Your task to perform on an android device: Show me popular games on the Play Store Image 0: 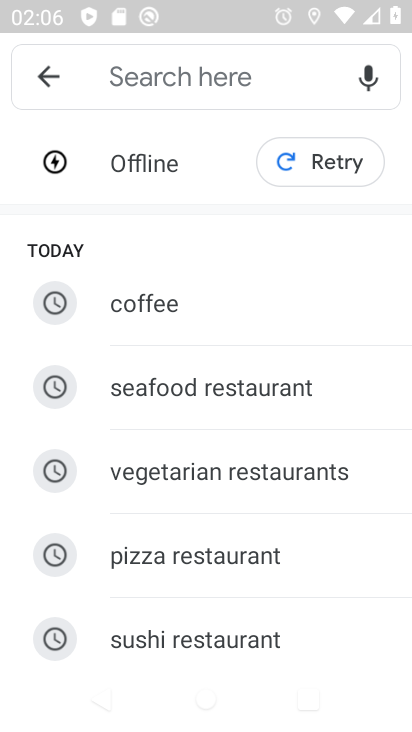
Step 0: press home button
Your task to perform on an android device: Show me popular games on the Play Store Image 1: 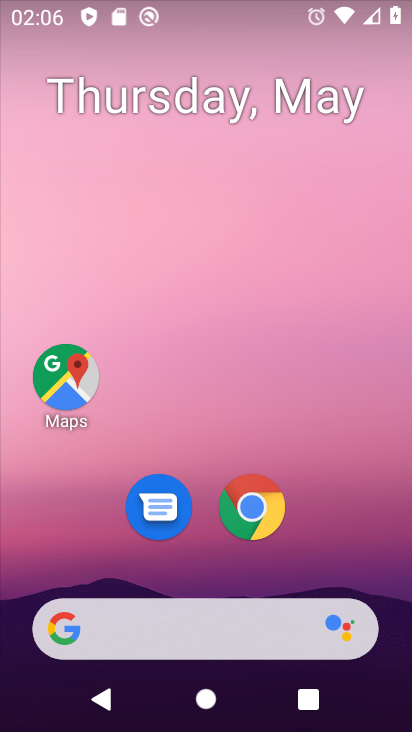
Step 1: drag from (363, 526) to (316, 174)
Your task to perform on an android device: Show me popular games on the Play Store Image 2: 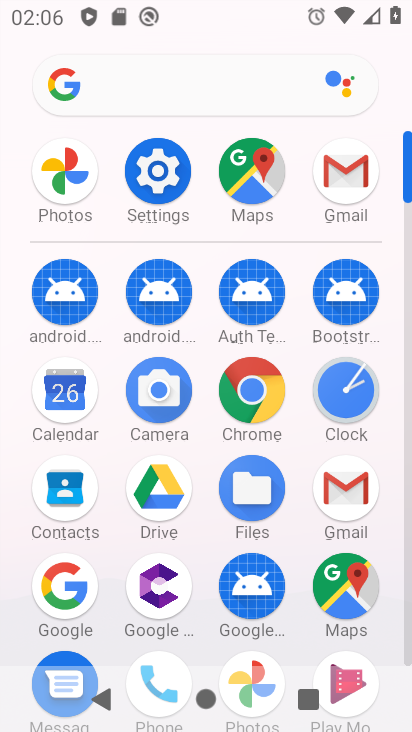
Step 2: click (407, 648)
Your task to perform on an android device: Show me popular games on the Play Store Image 3: 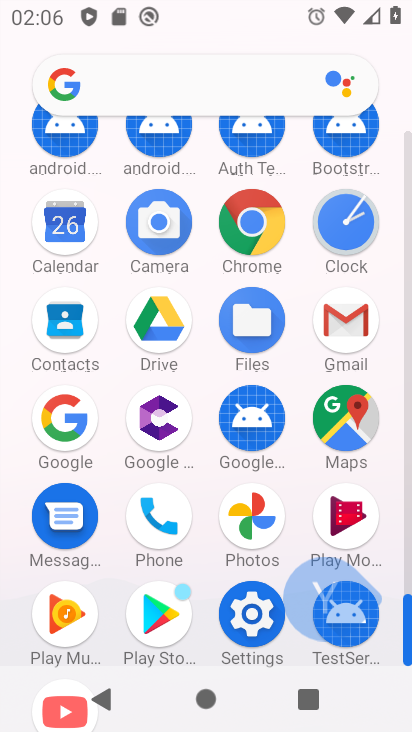
Step 3: click (407, 648)
Your task to perform on an android device: Show me popular games on the Play Store Image 4: 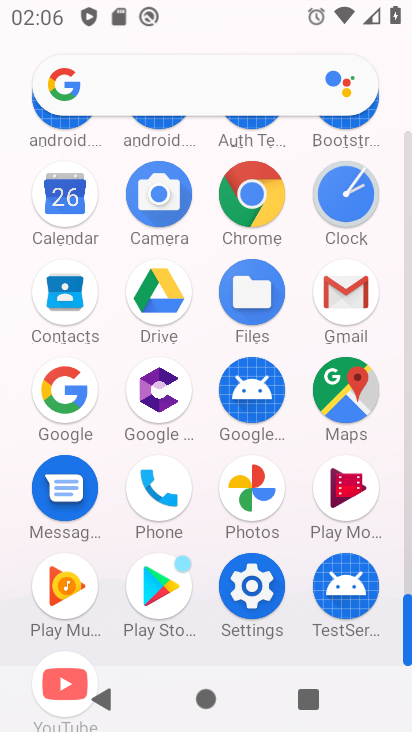
Step 4: click (78, 660)
Your task to perform on an android device: Show me popular games on the Play Store Image 5: 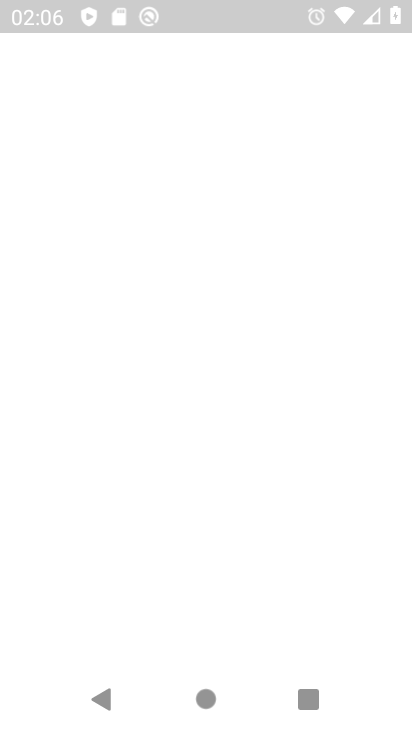
Step 5: press home button
Your task to perform on an android device: Show me popular games on the Play Store Image 6: 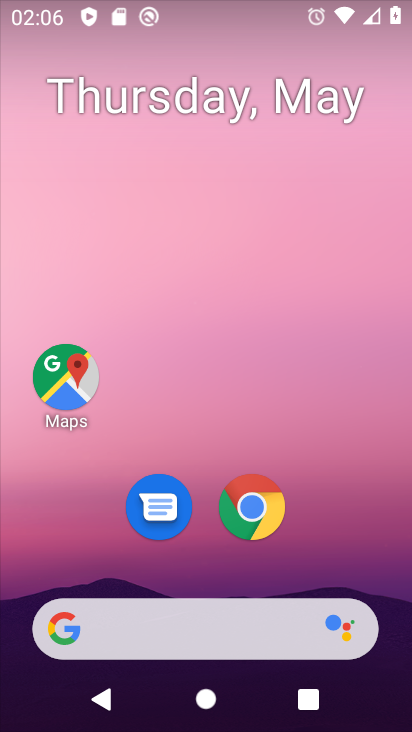
Step 6: click (363, 565)
Your task to perform on an android device: Show me popular games on the Play Store Image 7: 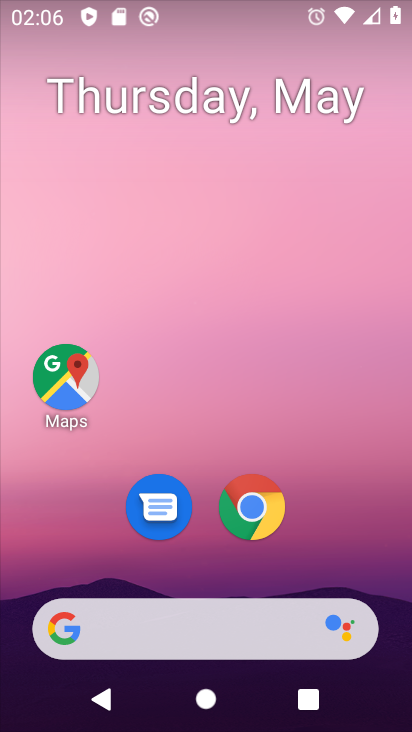
Step 7: drag from (363, 565) to (360, 241)
Your task to perform on an android device: Show me popular games on the Play Store Image 8: 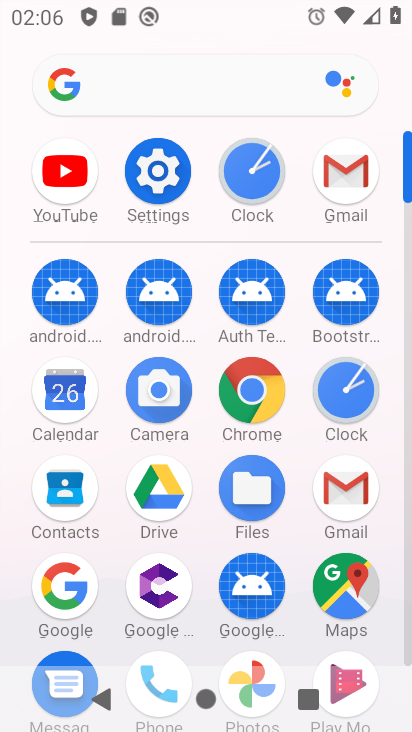
Step 8: click (408, 645)
Your task to perform on an android device: Show me popular games on the Play Store Image 9: 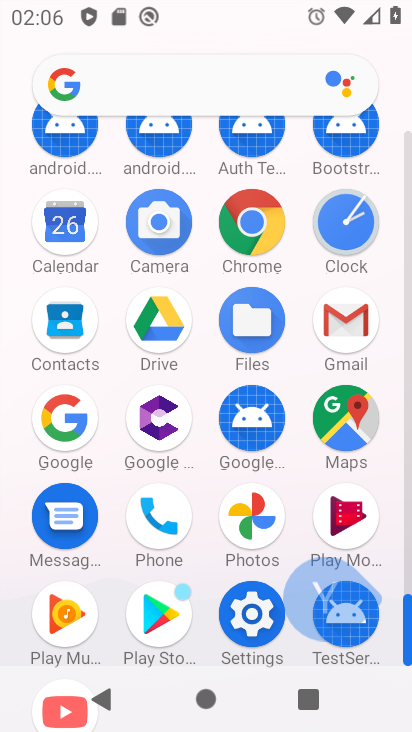
Step 9: click (408, 645)
Your task to perform on an android device: Show me popular games on the Play Store Image 10: 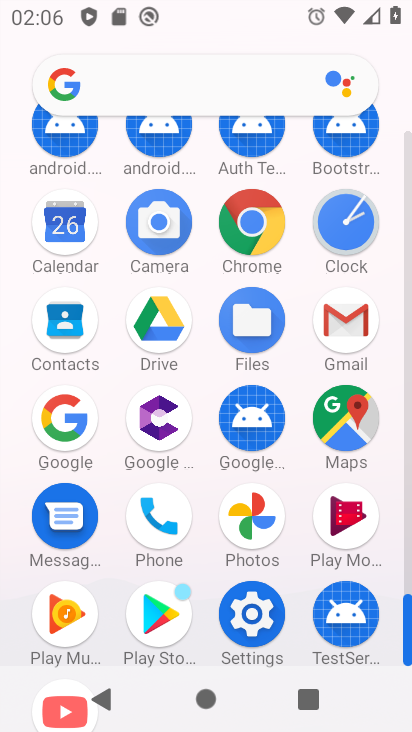
Step 10: click (146, 598)
Your task to perform on an android device: Show me popular games on the Play Store Image 11: 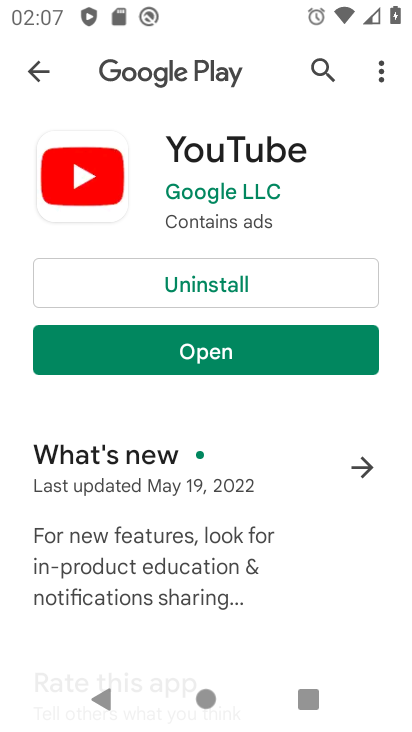
Step 11: click (46, 82)
Your task to perform on an android device: Show me popular games on the Play Store Image 12: 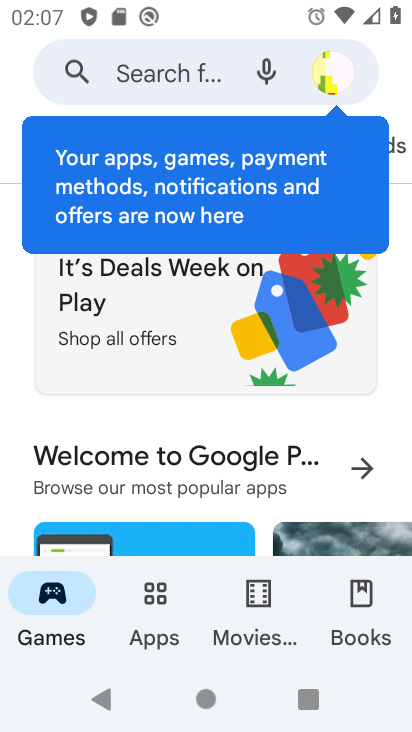
Step 12: click (160, 621)
Your task to perform on an android device: Show me popular games on the Play Store Image 13: 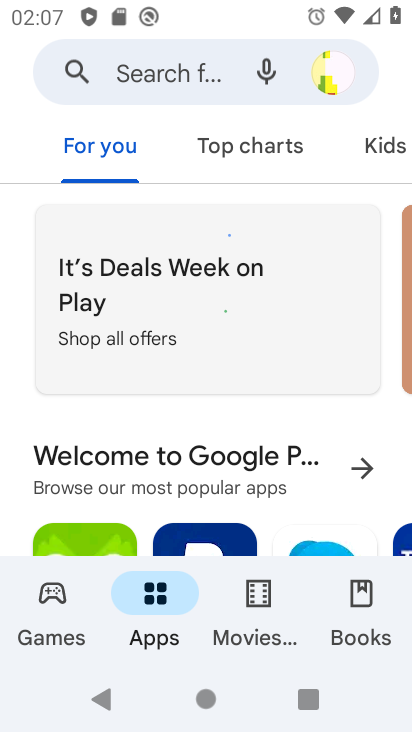
Step 13: click (61, 607)
Your task to perform on an android device: Show me popular games on the Play Store Image 14: 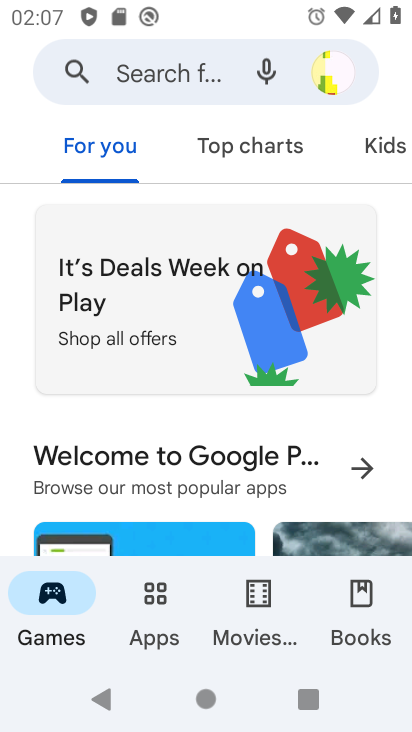
Step 14: click (210, 140)
Your task to perform on an android device: Show me popular games on the Play Store Image 15: 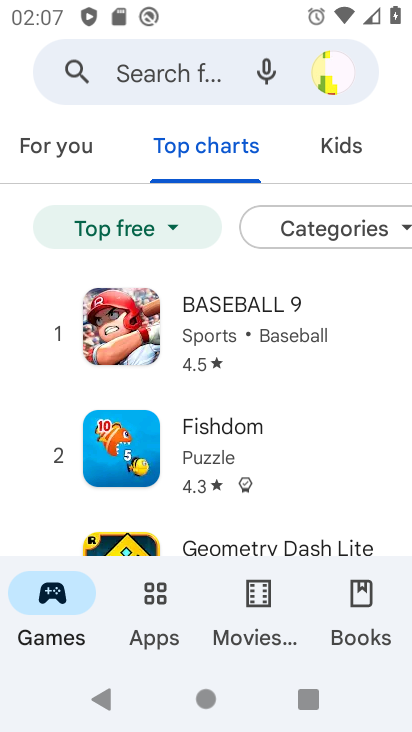
Step 15: task complete